Your task to perform on an android device: turn vacation reply on in the gmail app Image 0: 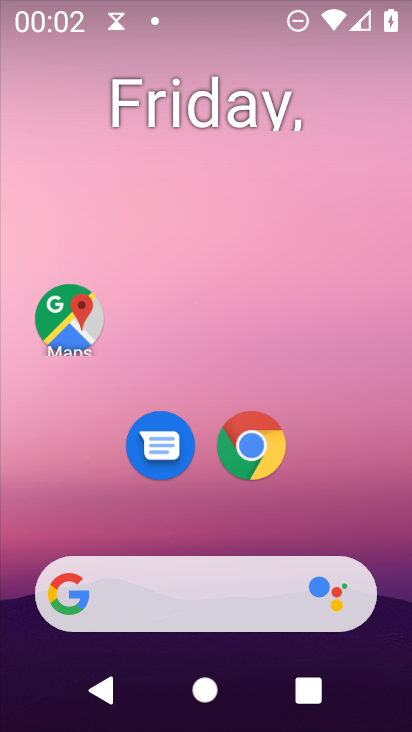
Step 0: drag from (251, 724) to (251, 59)
Your task to perform on an android device: turn vacation reply on in the gmail app Image 1: 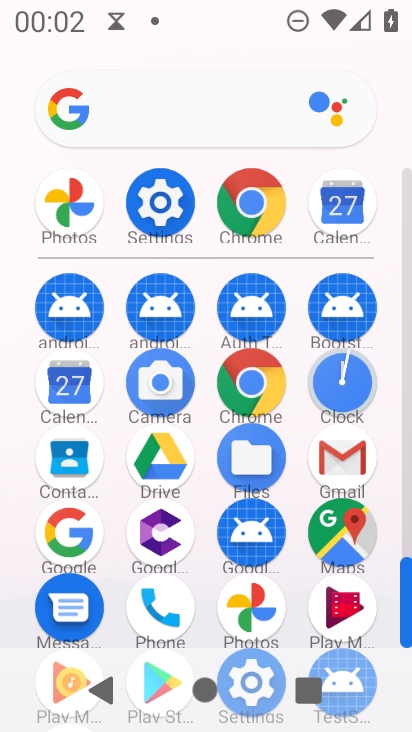
Step 1: click (346, 457)
Your task to perform on an android device: turn vacation reply on in the gmail app Image 2: 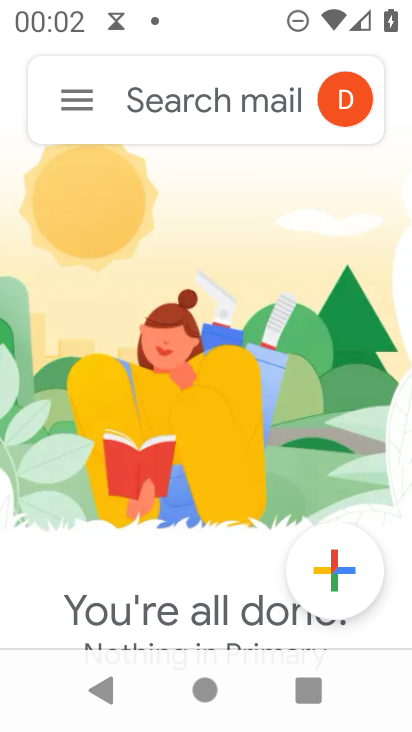
Step 2: click (78, 97)
Your task to perform on an android device: turn vacation reply on in the gmail app Image 3: 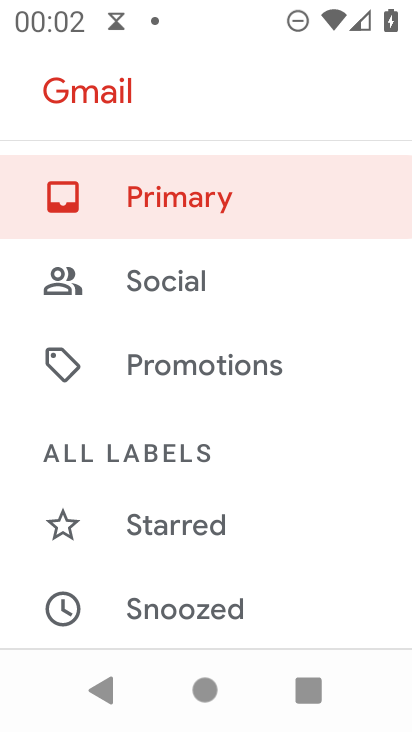
Step 3: drag from (166, 623) to (164, 148)
Your task to perform on an android device: turn vacation reply on in the gmail app Image 4: 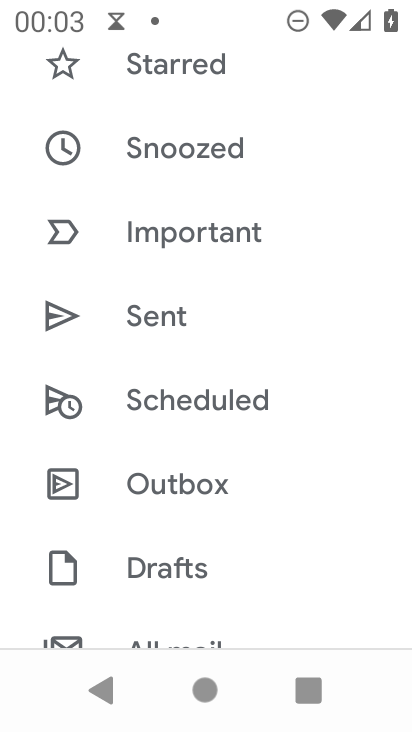
Step 4: drag from (146, 619) to (147, 166)
Your task to perform on an android device: turn vacation reply on in the gmail app Image 5: 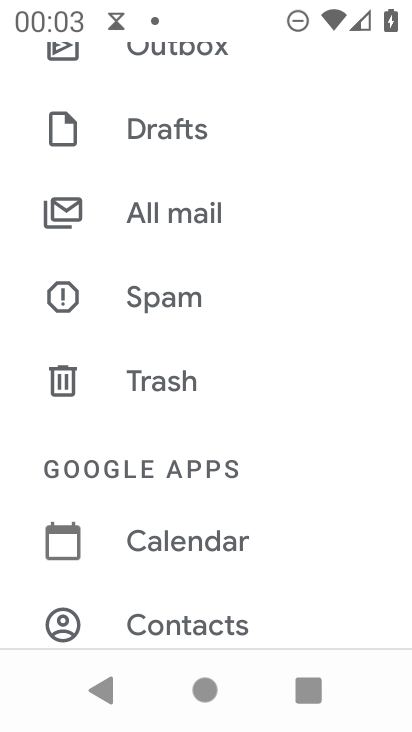
Step 5: drag from (180, 603) to (180, 153)
Your task to perform on an android device: turn vacation reply on in the gmail app Image 6: 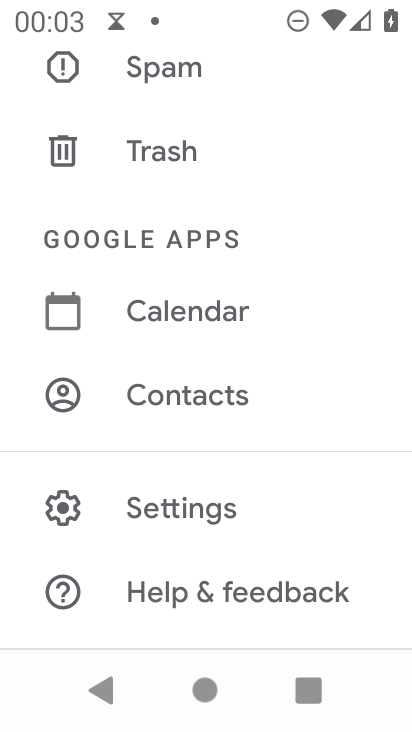
Step 6: click (175, 507)
Your task to perform on an android device: turn vacation reply on in the gmail app Image 7: 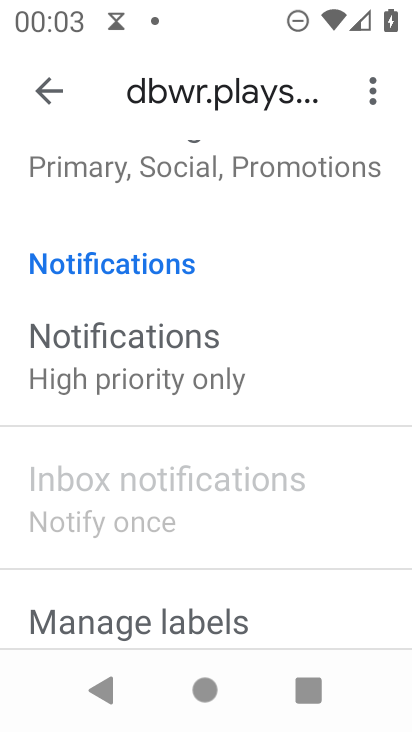
Step 7: drag from (158, 634) to (168, 250)
Your task to perform on an android device: turn vacation reply on in the gmail app Image 8: 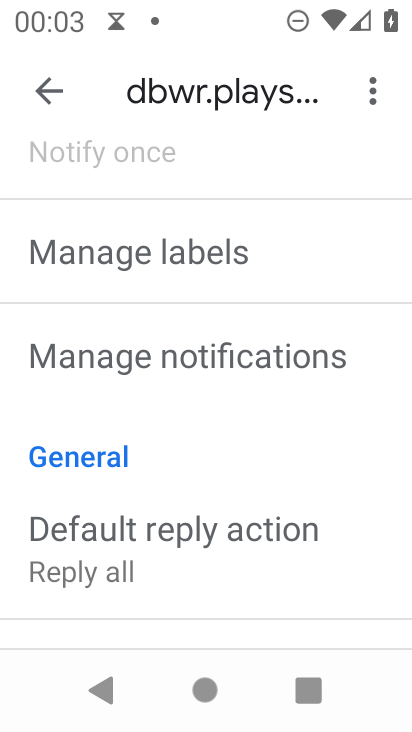
Step 8: drag from (163, 627) to (169, 210)
Your task to perform on an android device: turn vacation reply on in the gmail app Image 9: 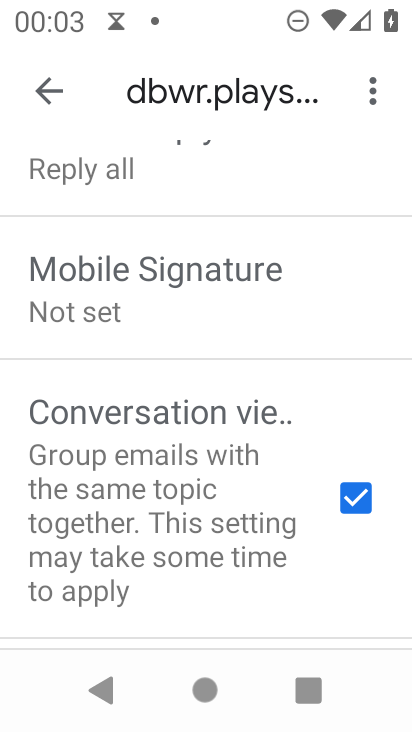
Step 9: drag from (164, 627) to (164, 172)
Your task to perform on an android device: turn vacation reply on in the gmail app Image 10: 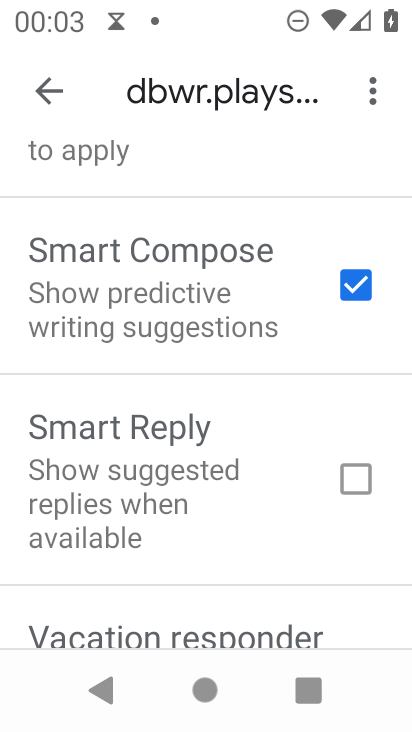
Step 10: drag from (155, 612) to (181, 299)
Your task to perform on an android device: turn vacation reply on in the gmail app Image 11: 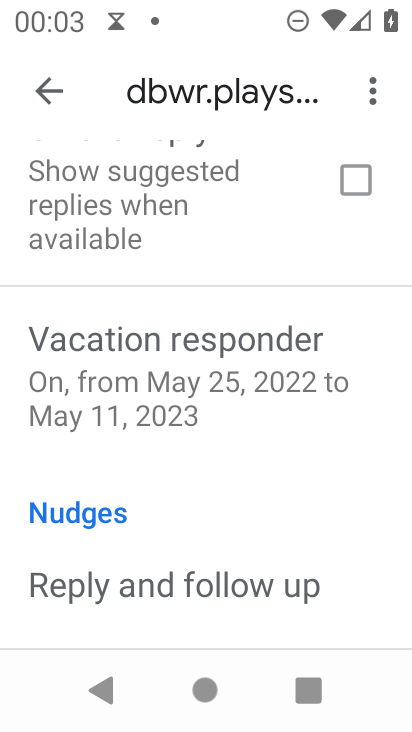
Step 11: click (207, 389)
Your task to perform on an android device: turn vacation reply on in the gmail app Image 12: 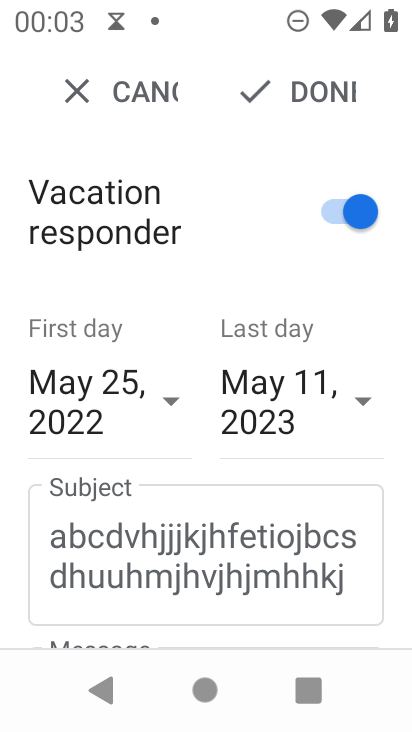
Step 12: task complete